Your task to perform on an android device: Open Android settings Image 0: 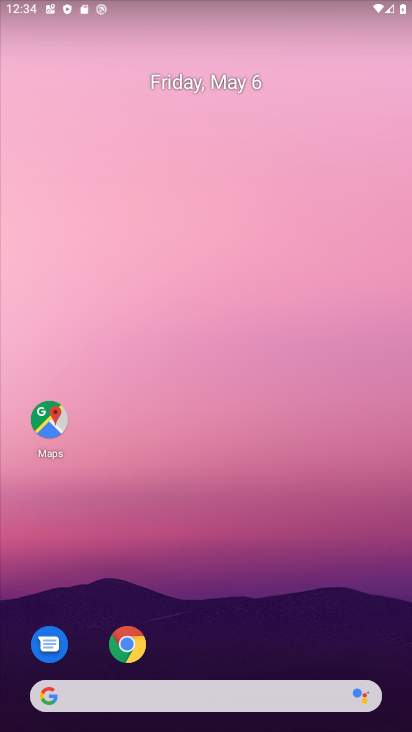
Step 0: drag from (207, 676) to (206, 144)
Your task to perform on an android device: Open Android settings Image 1: 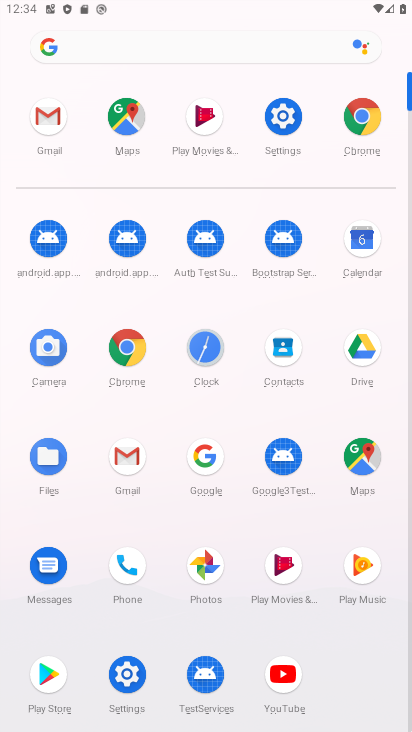
Step 1: click (289, 112)
Your task to perform on an android device: Open Android settings Image 2: 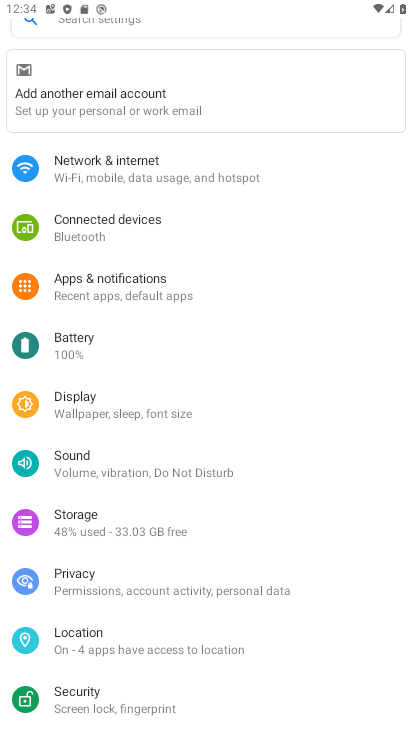
Step 2: drag from (310, 627) to (280, 240)
Your task to perform on an android device: Open Android settings Image 3: 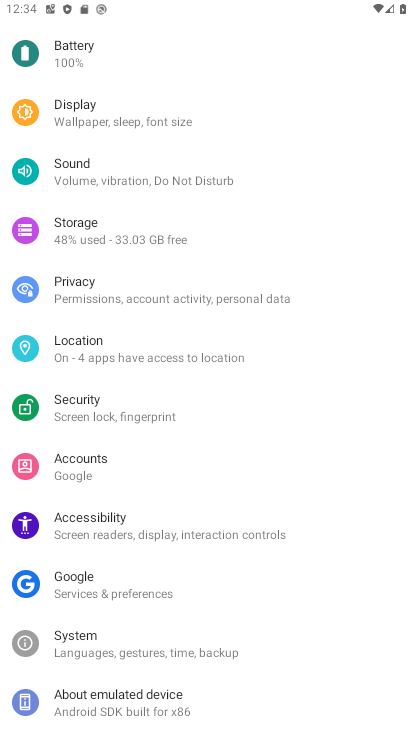
Step 3: drag from (295, 502) to (308, 337)
Your task to perform on an android device: Open Android settings Image 4: 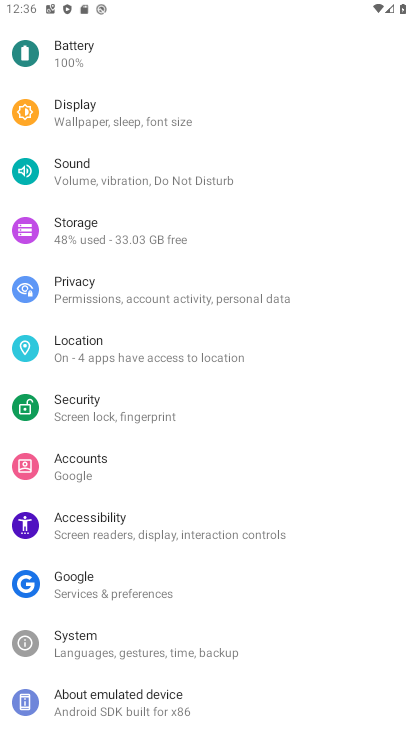
Step 4: click (173, 694)
Your task to perform on an android device: Open Android settings Image 5: 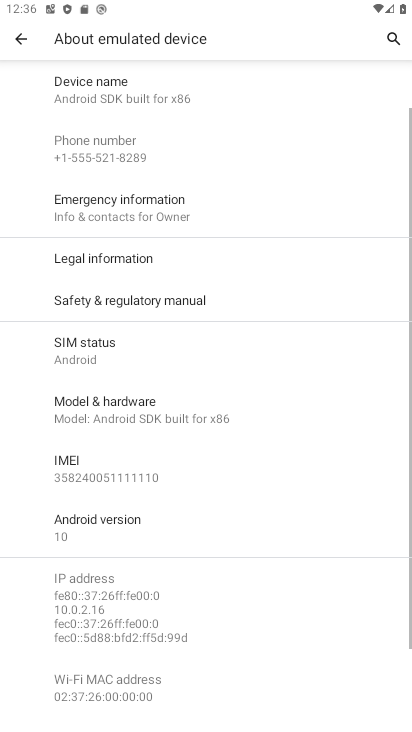
Step 5: click (117, 529)
Your task to perform on an android device: Open Android settings Image 6: 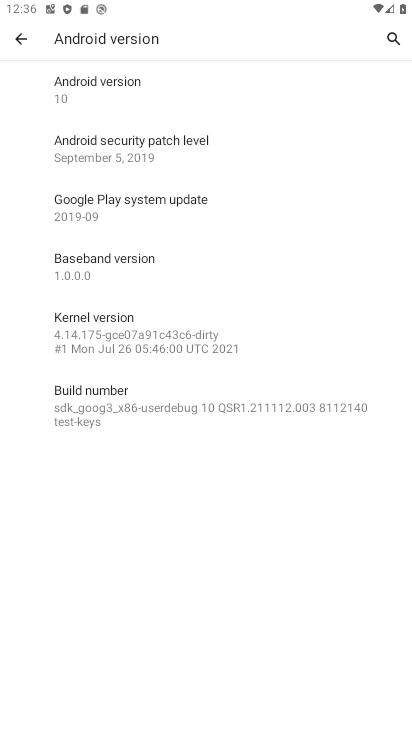
Step 6: task complete